Your task to perform on an android device: Find coffee shops on Maps Image 0: 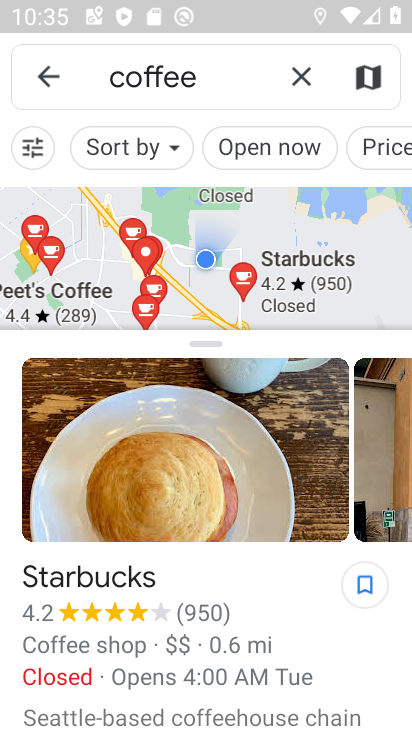
Step 0: task complete